Your task to perform on an android device: open app "LiveIn - Share Your Moment" Image 0: 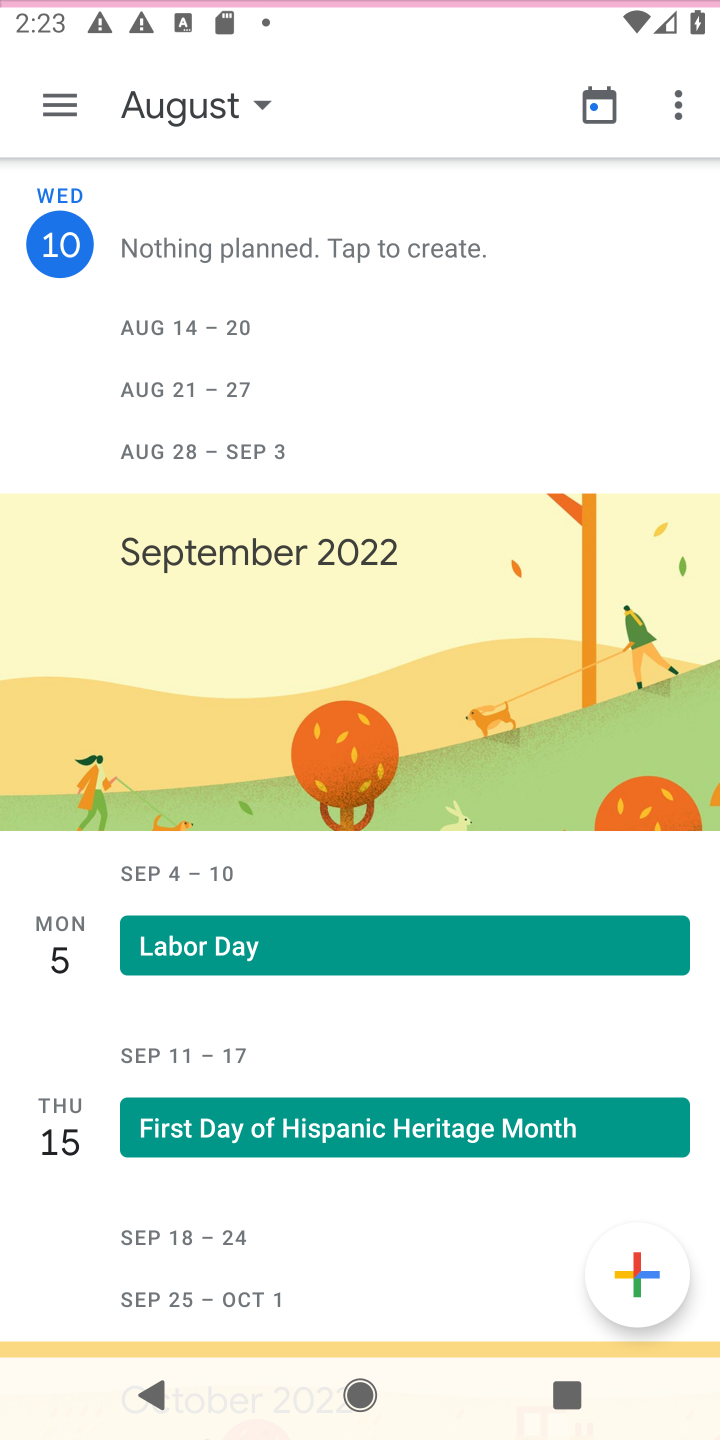
Step 0: press home button
Your task to perform on an android device: open app "LiveIn - Share Your Moment" Image 1: 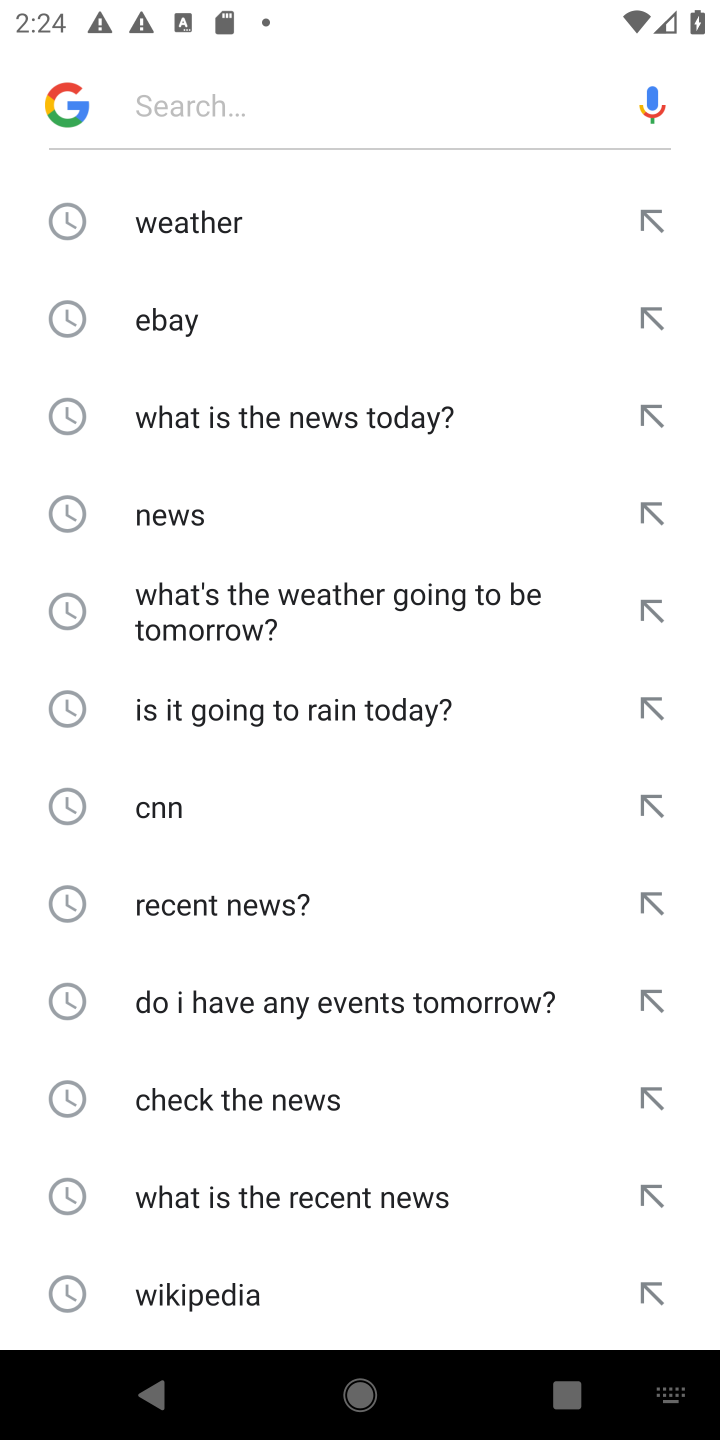
Step 1: press home button
Your task to perform on an android device: open app "LiveIn - Share Your Moment" Image 2: 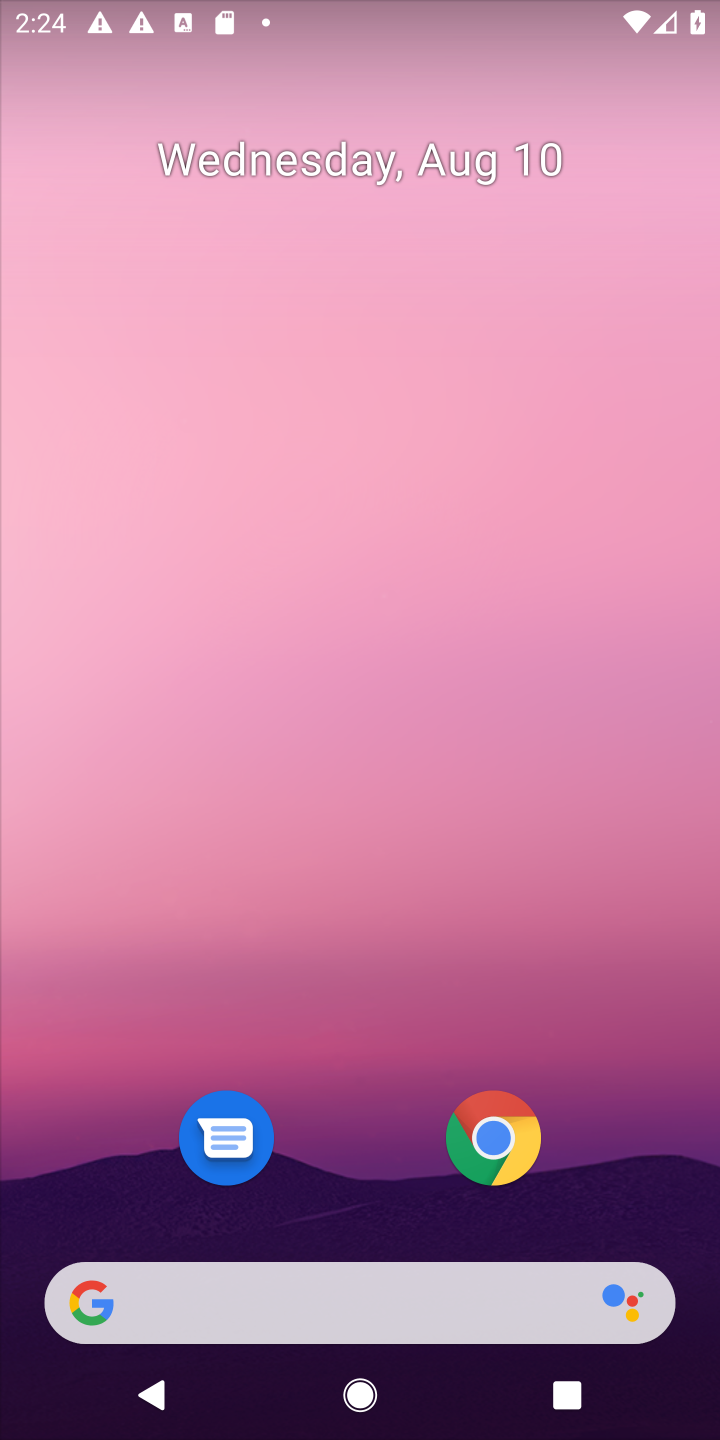
Step 2: drag from (595, 820) to (605, 141)
Your task to perform on an android device: open app "LiveIn - Share Your Moment" Image 3: 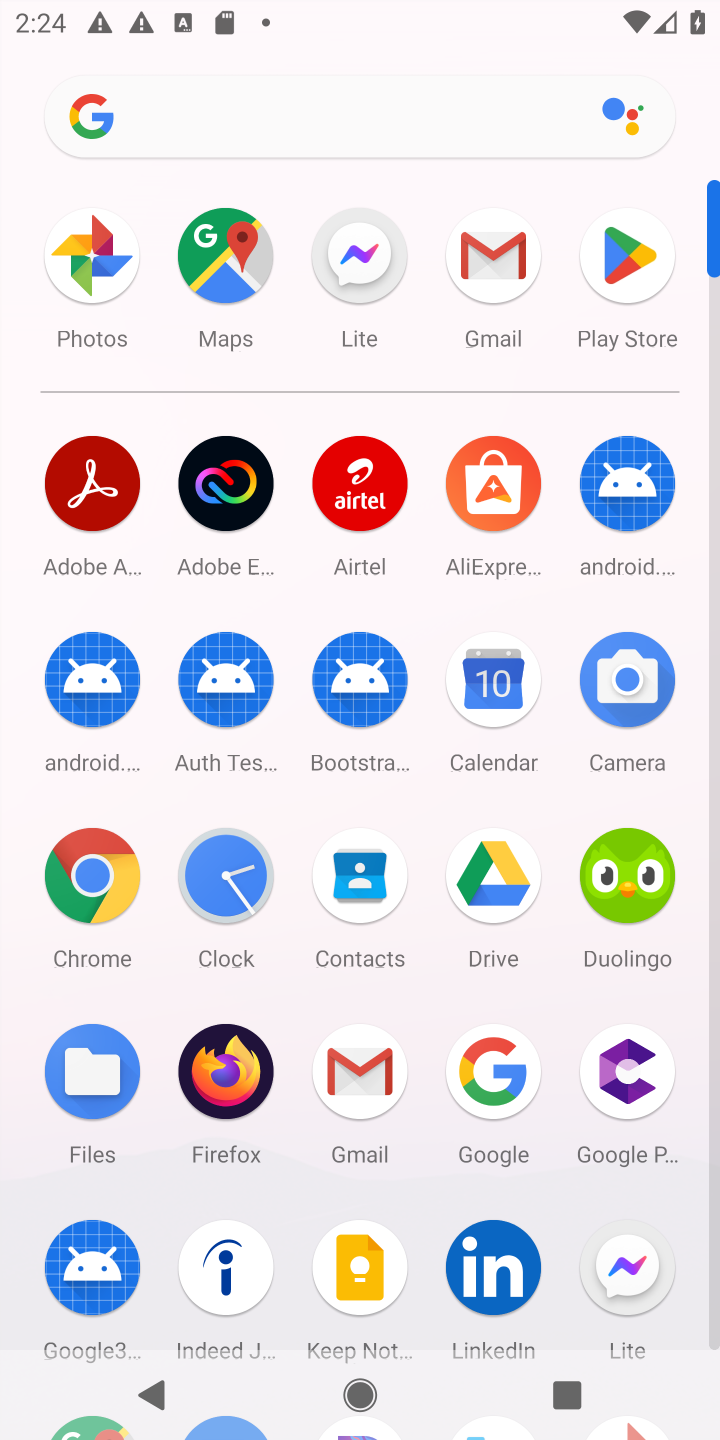
Step 3: click (634, 258)
Your task to perform on an android device: open app "LiveIn - Share Your Moment" Image 4: 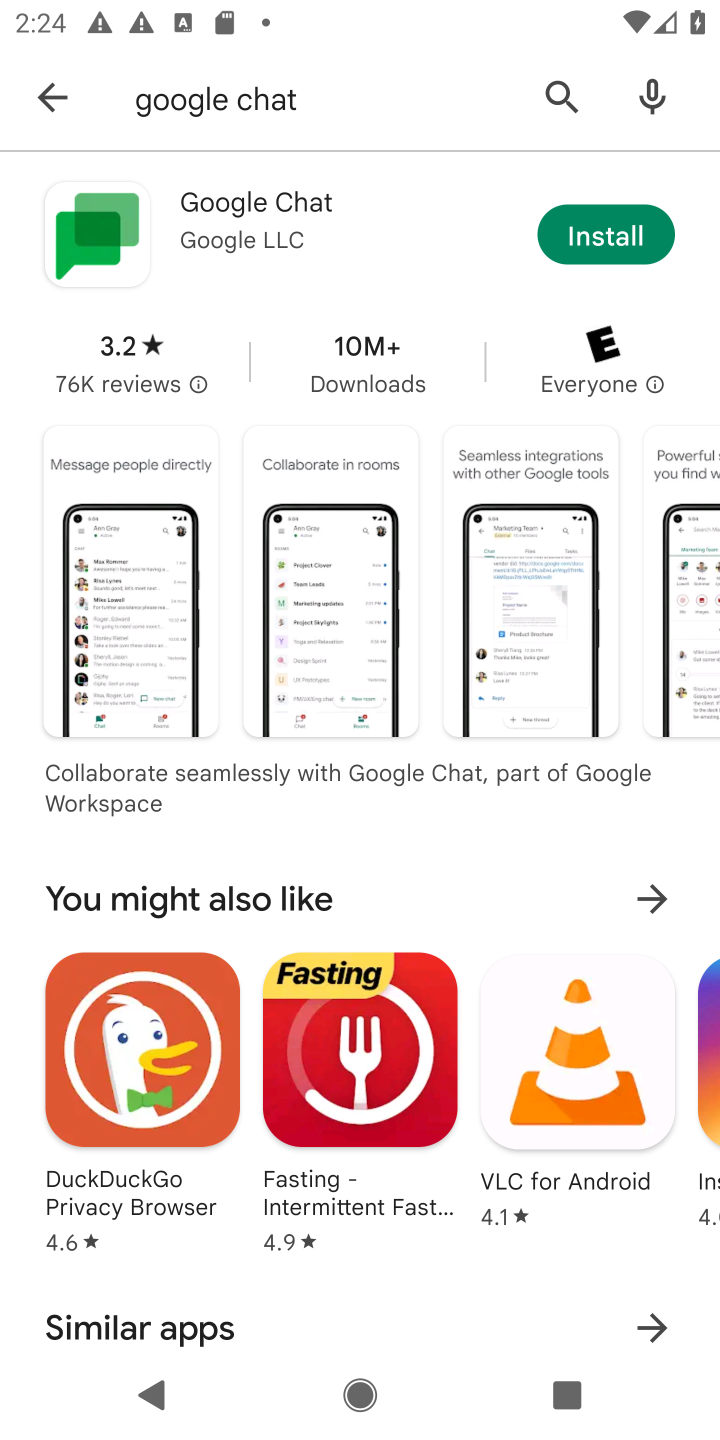
Step 4: click (561, 87)
Your task to perform on an android device: open app "LiveIn - Share Your Moment" Image 5: 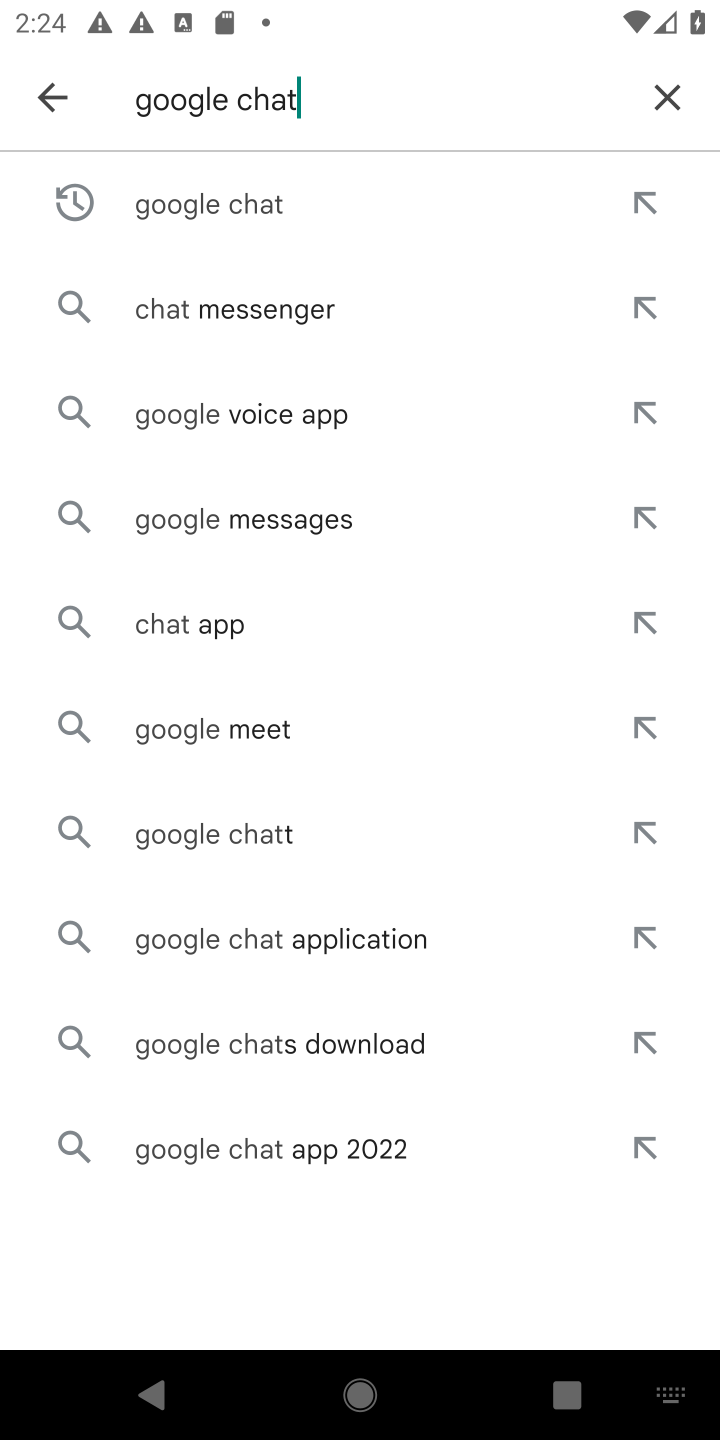
Step 5: click (657, 90)
Your task to perform on an android device: open app "LiveIn - Share Your Moment" Image 6: 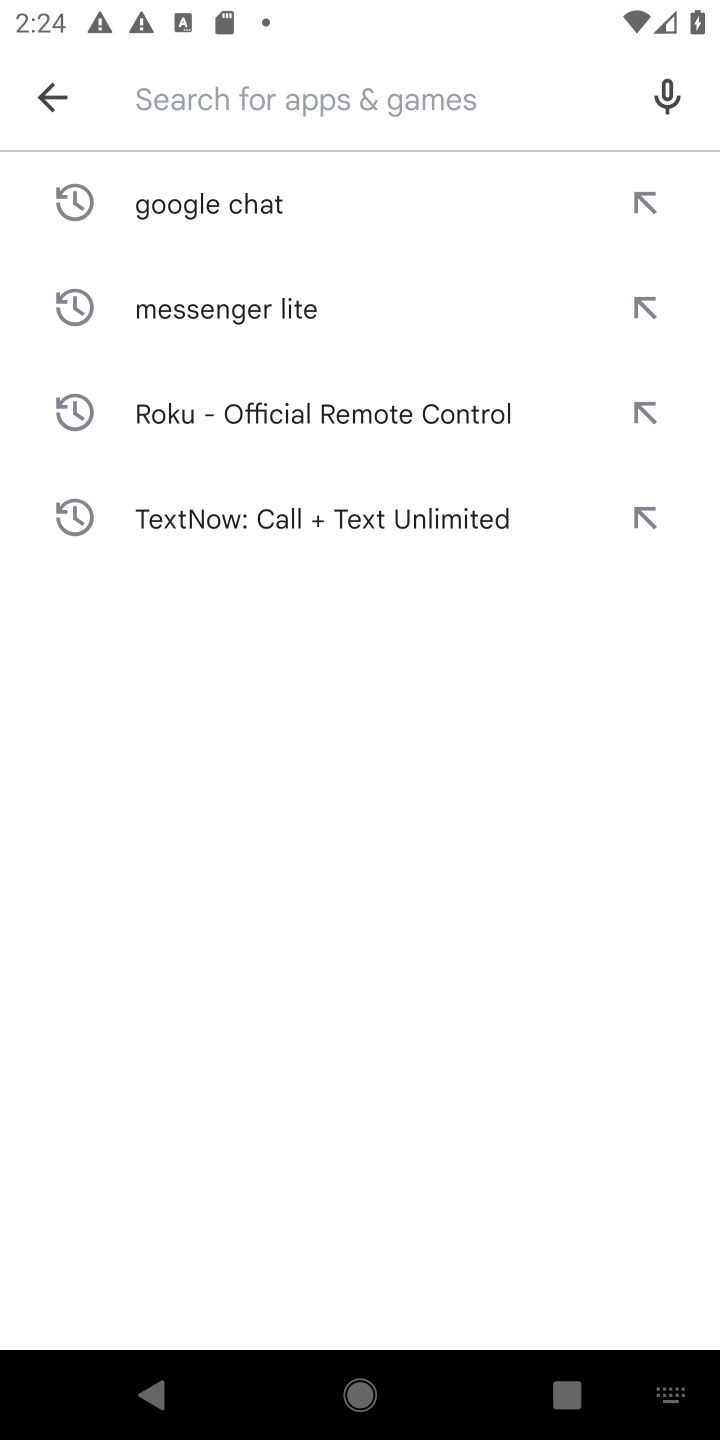
Step 6: type "LiveIn - Share Your Moment"
Your task to perform on an android device: open app "LiveIn - Share Your Moment" Image 7: 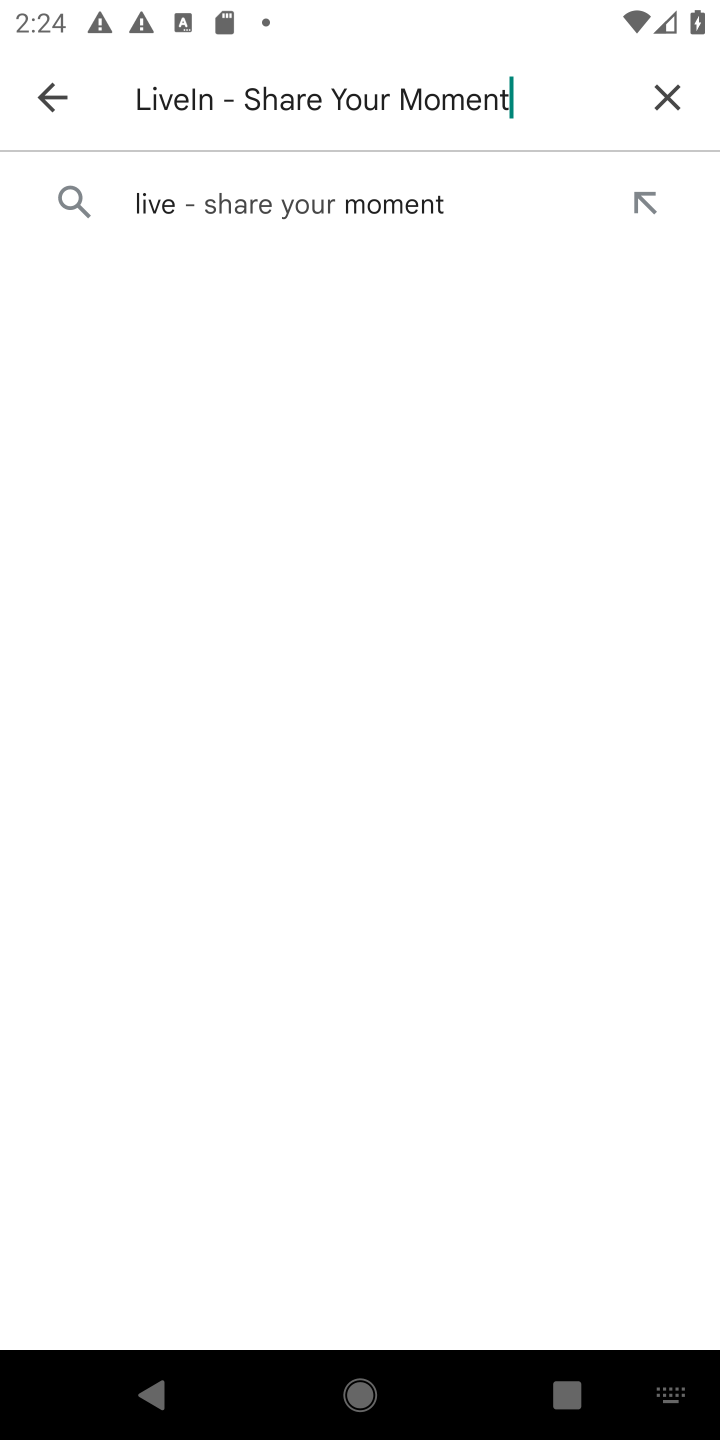
Step 7: press enter
Your task to perform on an android device: open app "LiveIn - Share Your Moment" Image 8: 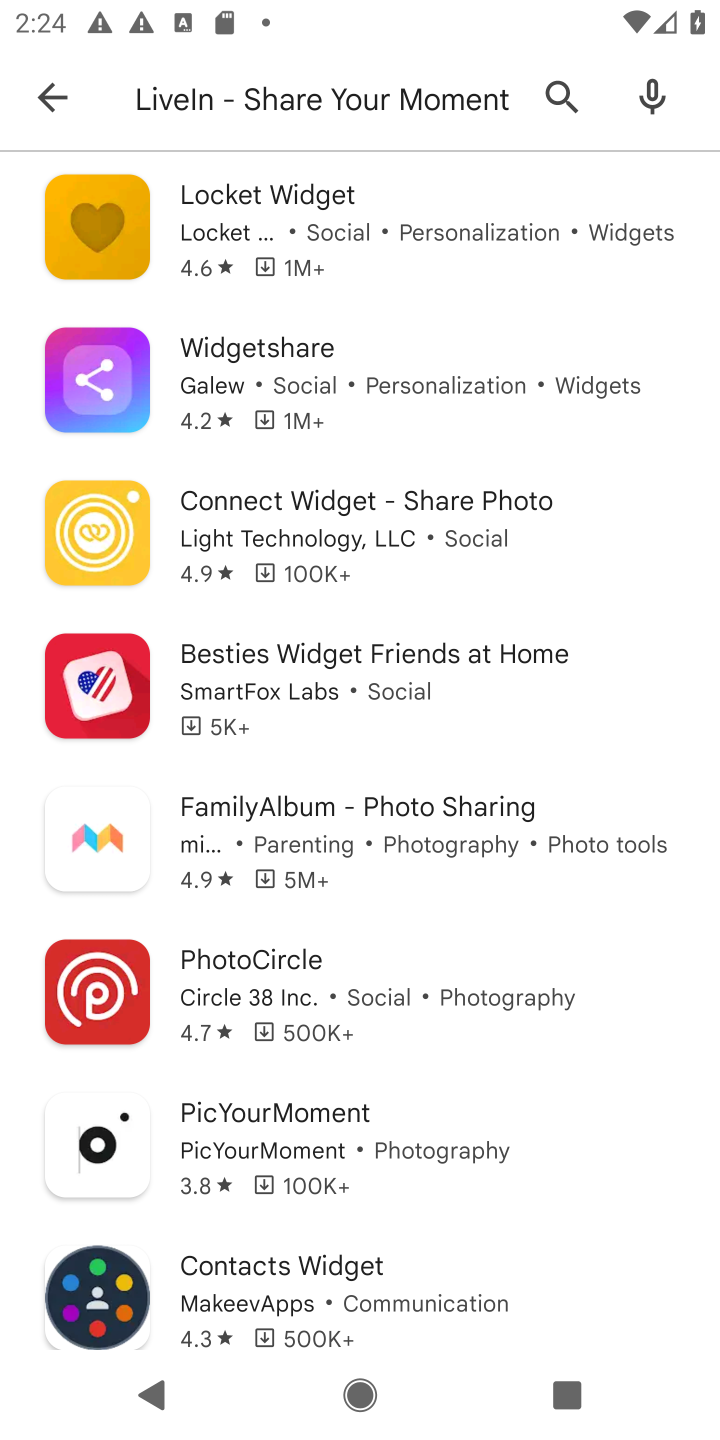
Step 8: task complete